Your task to perform on an android device: Open CNN.com Image 0: 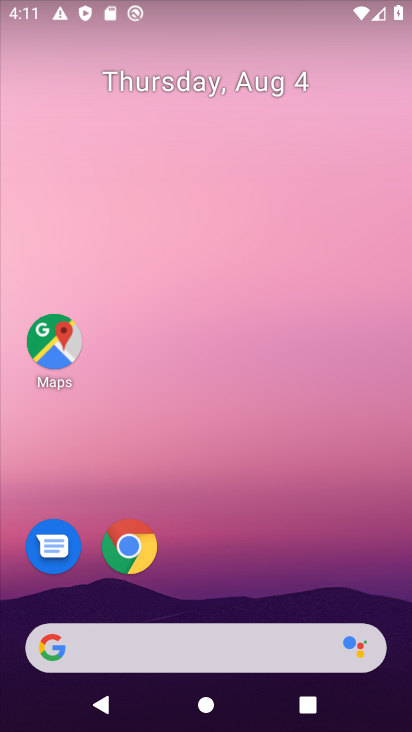
Step 0: click (133, 550)
Your task to perform on an android device: Open CNN.com Image 1: 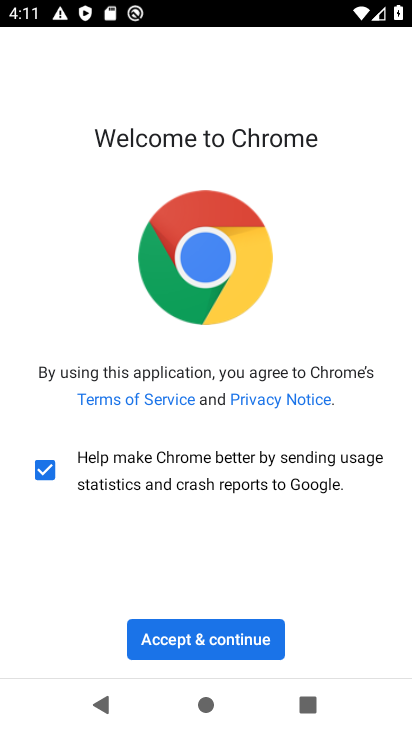
Step 1: click (174, 641)
Your task to perform on an android device: Open CNN.com Image 2: 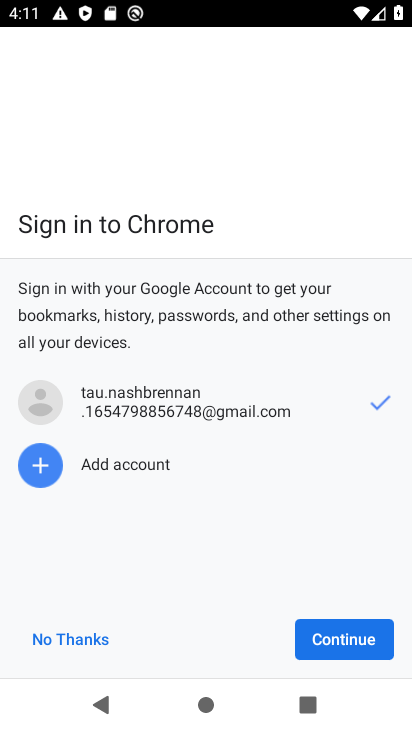
Step 2: click (345, 643)
Your task to perform on an android device: Open CNN.com Image 3: 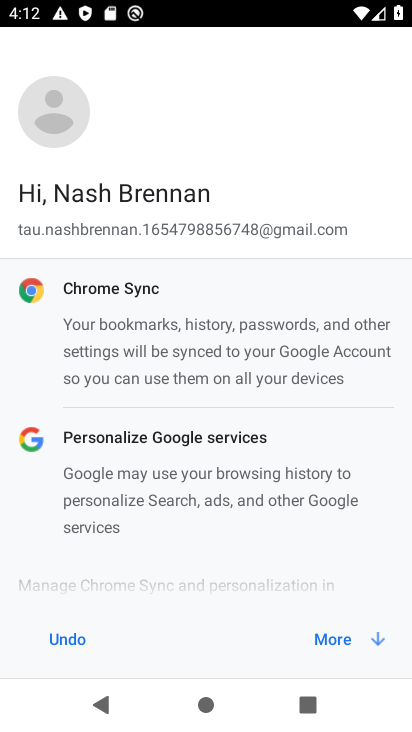
Step 3: click (345, 643)
Your task to perform on an android device: Open CNN.com Image 4: 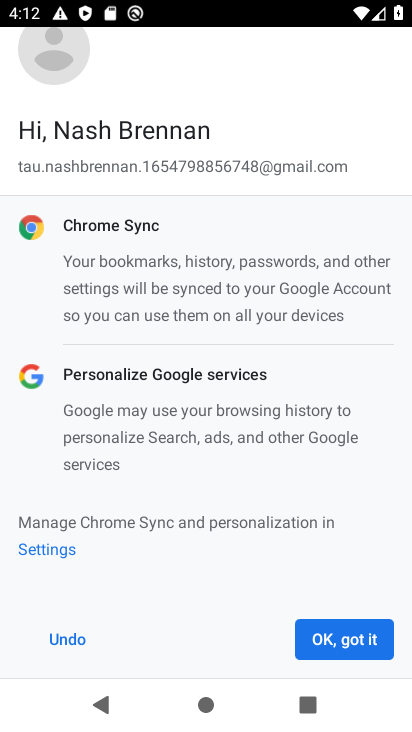
Step 4: click (345, 643)
Your task to perform on an android device: Open CNN.com Image 5: 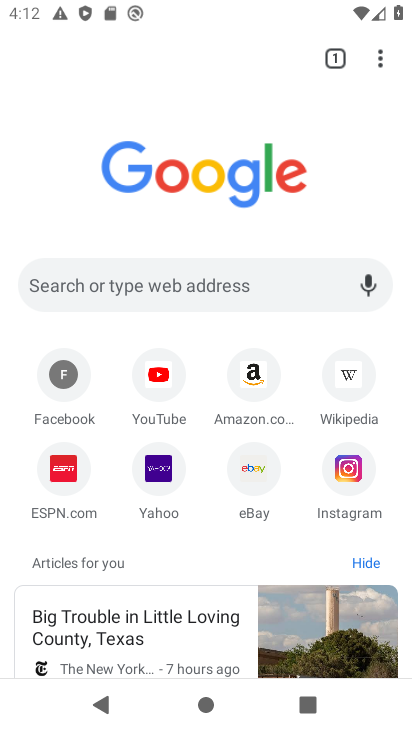
Step 5: click (195, 277)
Your task to perform on an android device: Open CNN.com Image 6: 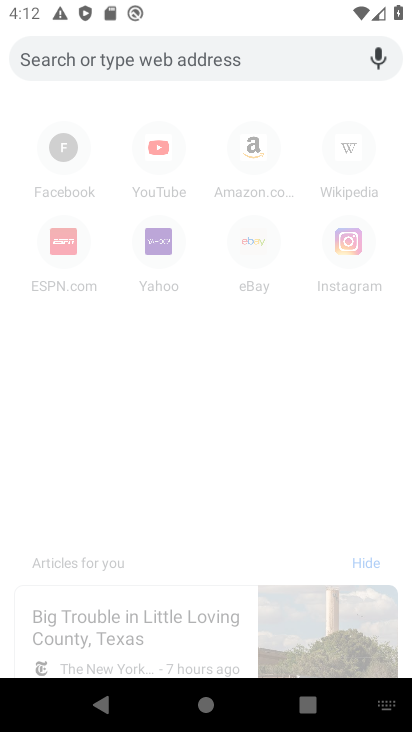
Step 6: type "www.cnn.com"
Your task to perform on an android device: Open CNN.com Image 7: 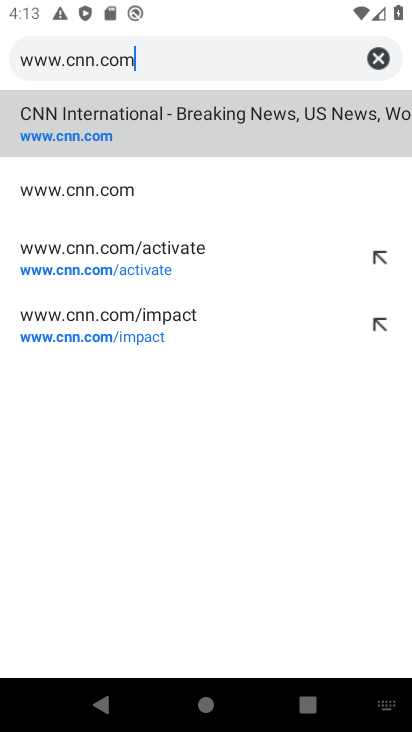
Step 7: click (61, 129)
Your task to perform on an android device: Open CNN.com Image 8: 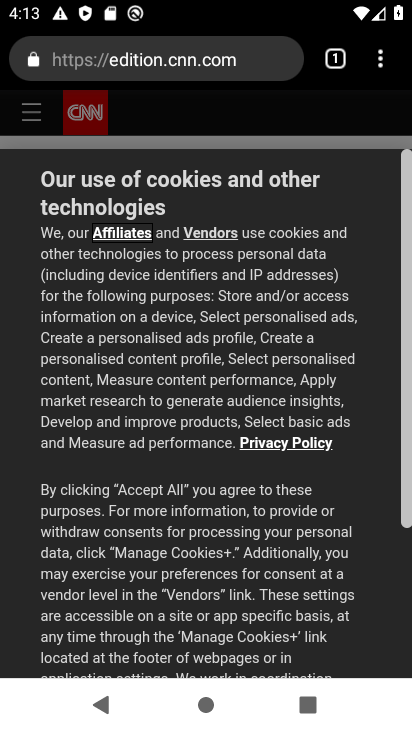
Step 8: task complete